Your task to perform on an android device: turn off wifi Image 0: 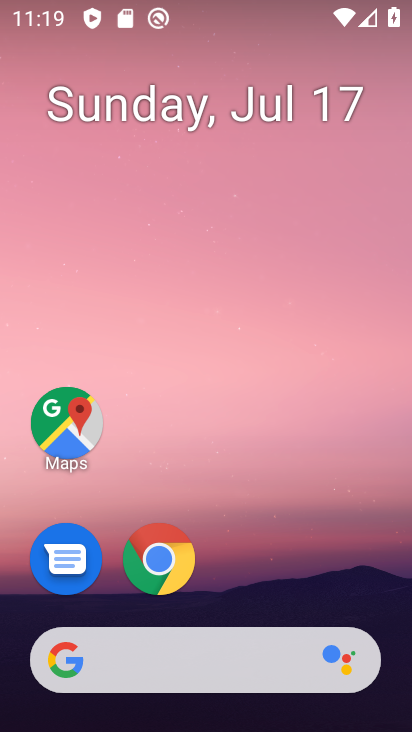
Step 0: drag from (122, 11) to (197, 605)
Your task to perform on an android device: turn off wifi Image 1: 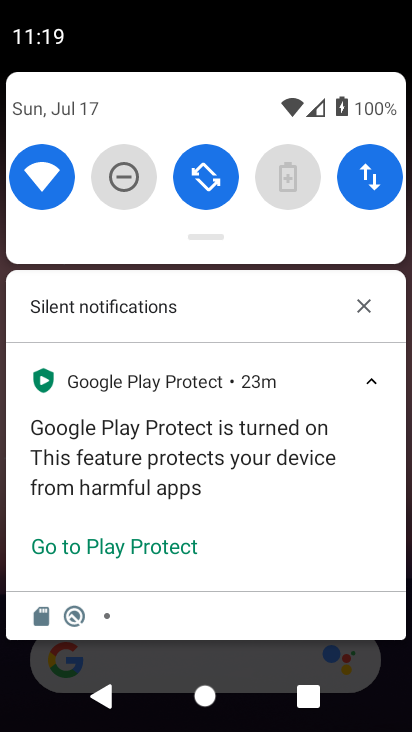
Step 1: click (49, 168)
Your task to perform on an android device: turn off wifi Image 2: 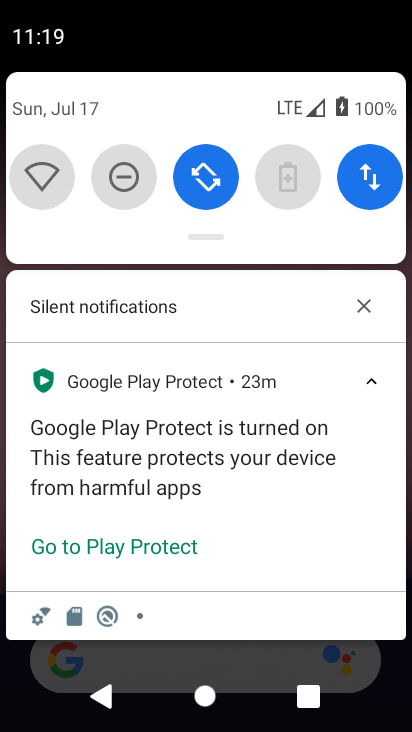
Step 2: task complete